Your task to perform on an android device: toggle translation in the chrome app Image 0: 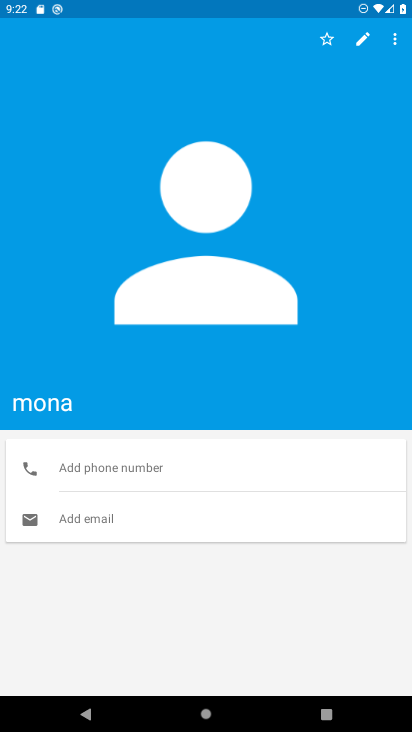
Step 0: press home button
Your task to perform on an android device: toggle translation in the chrome app Image 1: 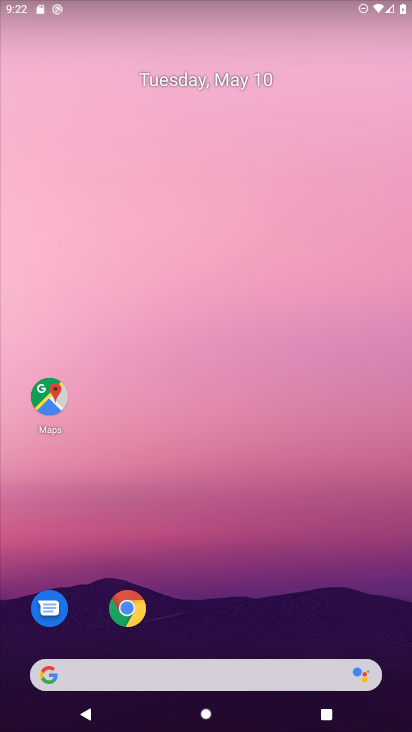
Step 1: drag from (362, 620) to (317, 25)
Your task to perform on an android device: toggle translation in the chrome app Image 2: 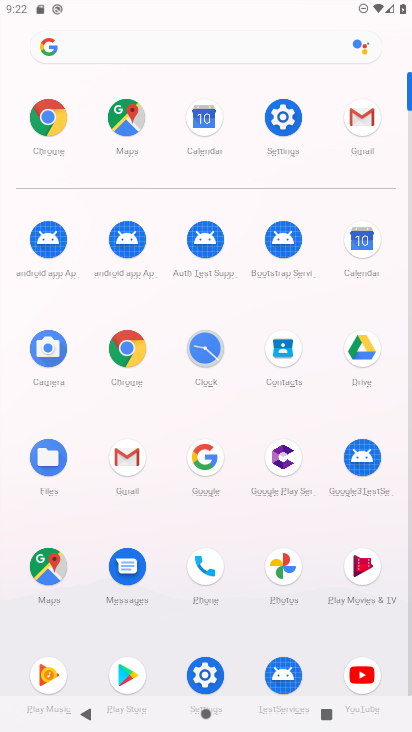
Step 2: click (121, 356)
Your task to perform on an android device: toggle translation in the chrome app Image 3: 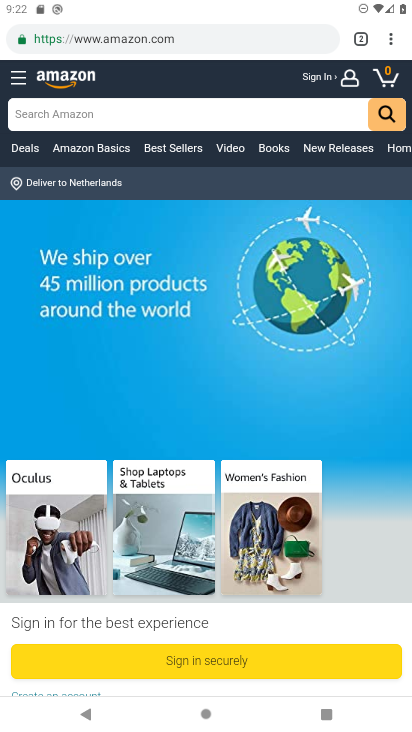
Step 3: press back button
Your task to perform on an android device: toggle translation in the chrome app Image 4: 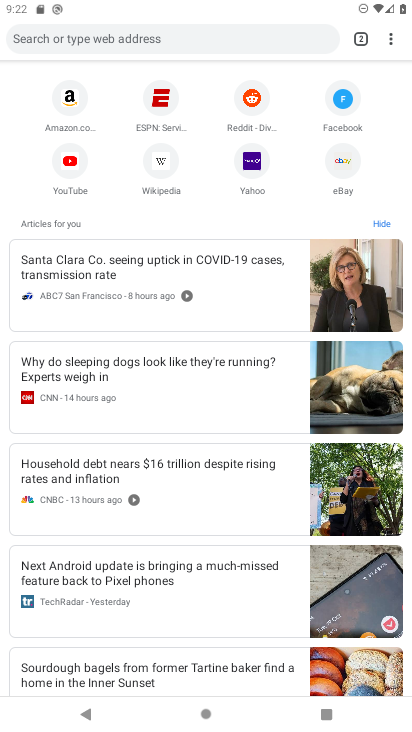
Step 4: click (388, 39)
Your task to perform on an android device: toggle translation in the chrome app Image 5: 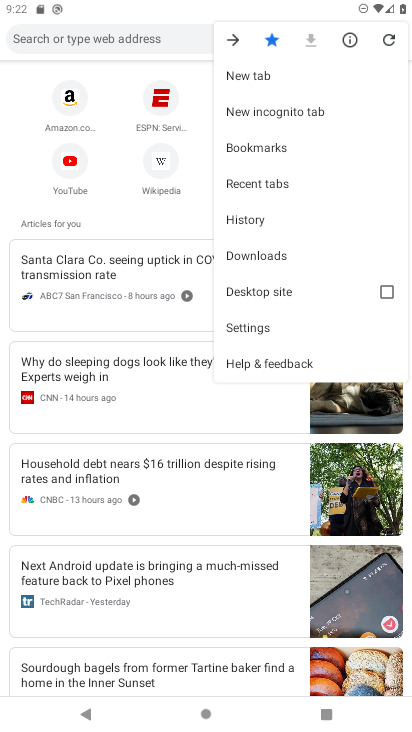
Step 5: click (319, 331)
Your task to perform on an android device: toggle translation in the chrome app Image 6: 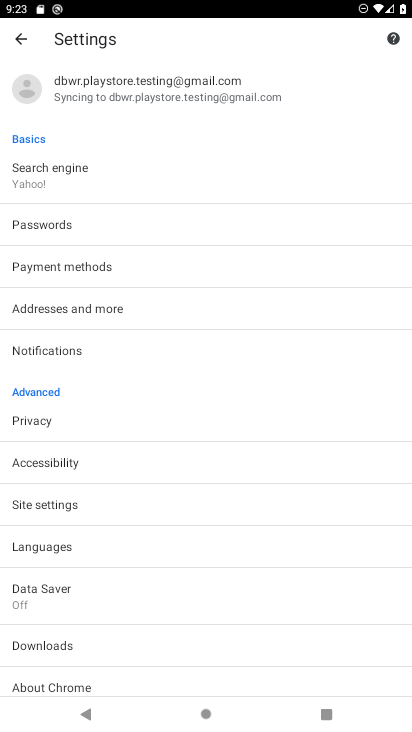
Step 6: click (95, 554)
Your task to perform on an android device: toggle translation in the chrome app Image 7: 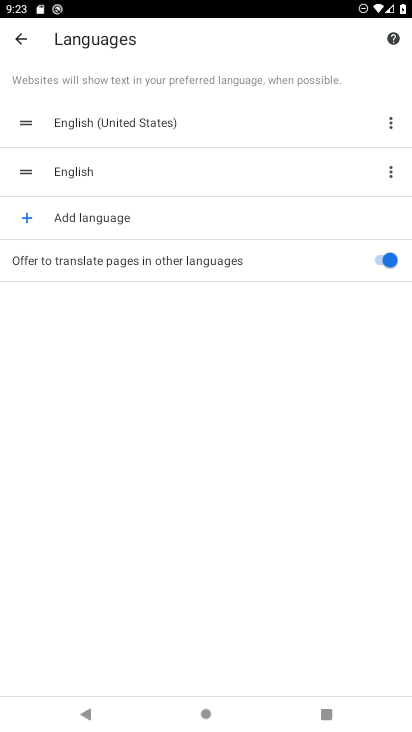
Step 7: click (358, 267)
Your task to perform on an android device: toggle translation in the chrome app Image 8: 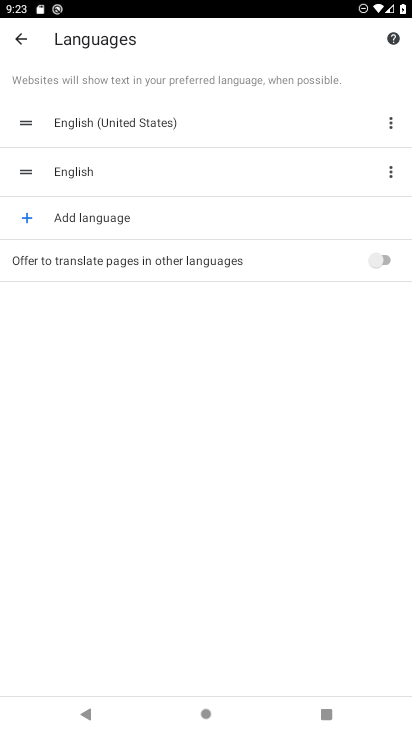
Step 8: task complete